Your task to perform on an android device: Open eBay Image 0: 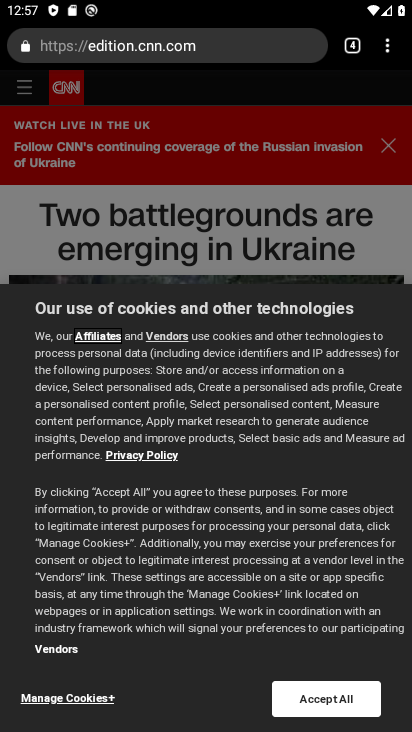
Step 0: press home button
Your task to perform on an android device: Open eBay Image 1: 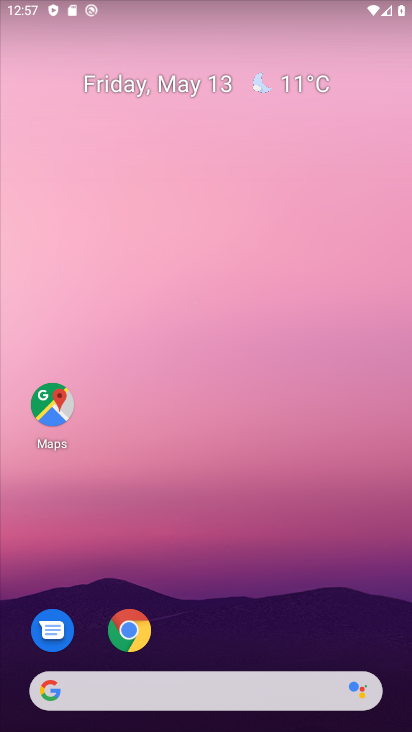
Step 1: drag from (260, 643) to (227, 268)
Your task to perform on an android device: Open eBay Image 2: 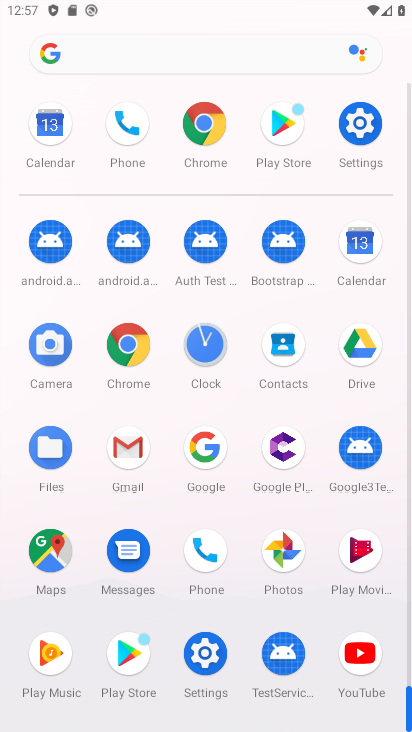
Step 2: click (142, 364)
Your task to perform on an android device: Open eBay Image 3: 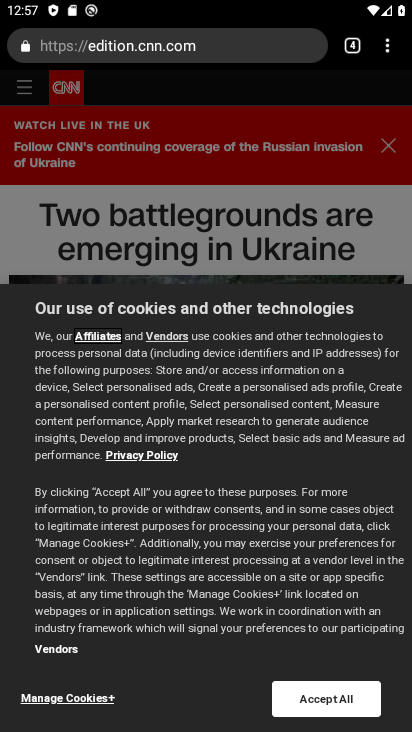
Step 3: click (348, 59)
Your task to perform on an android device: Open eBay Image 4: 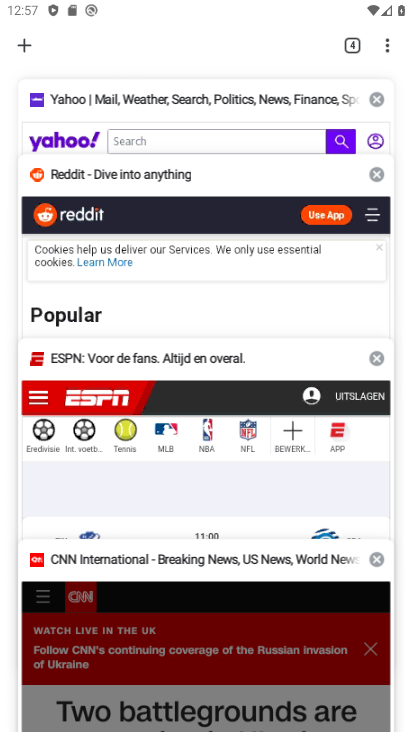
Step 4: click (26, 46)
Your task to perform on an android device: Open eBay Image 5: 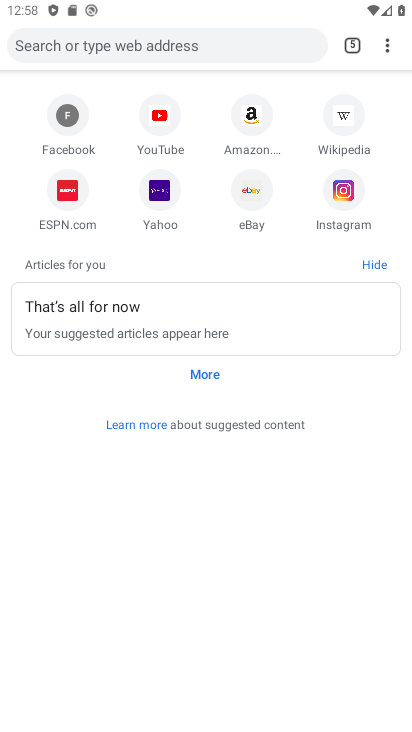
Step 5: click (157, 38)
Your task to perform on an android device: Open eBay Image 6: 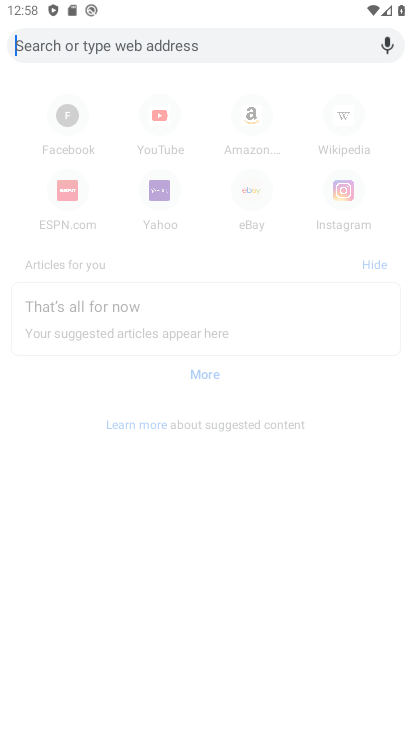
Step 6: click (155, 46)
Your task to perform on an android device: Open eBay Image 7: 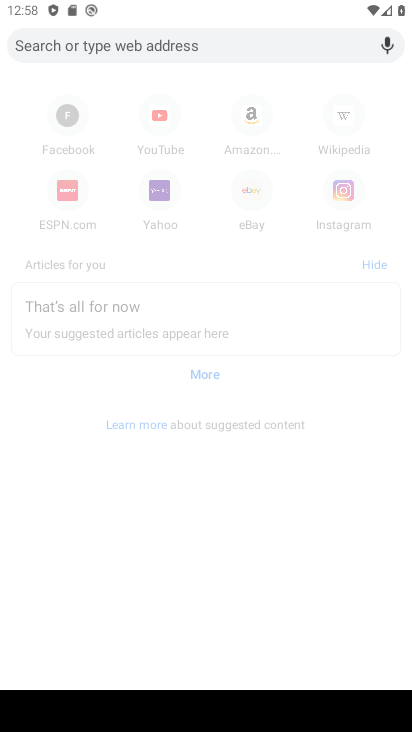
Step 7: type "ebay"
Your task to perform on an android device: Open eBay Image 8: 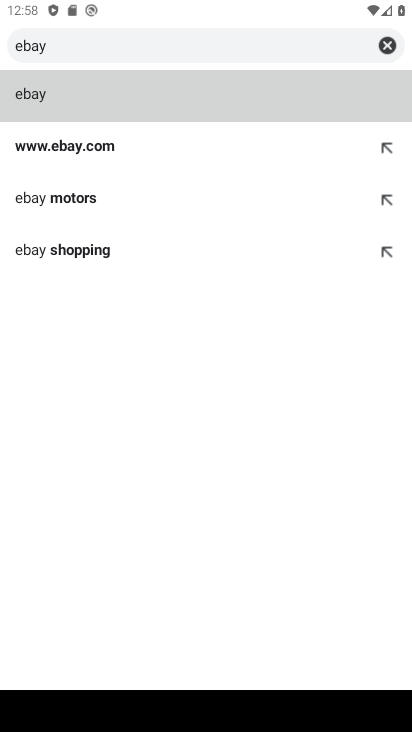
Step 8: click (47, 84)
Your task to perform on an android device: Open eBay Image 9: 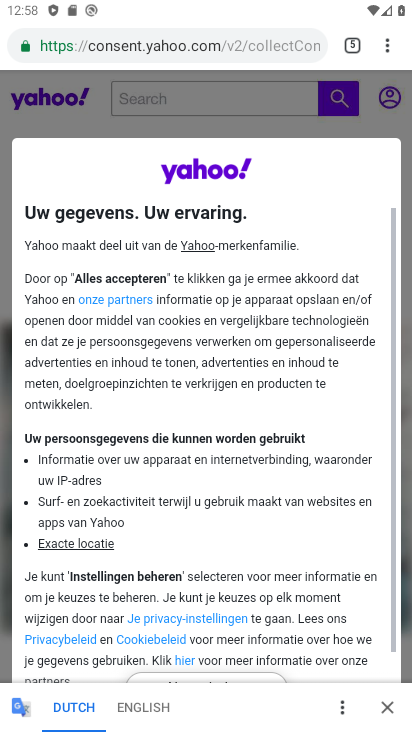
Step 9: click (384, 713)
Your task to perform on an android device: Open eBay Image 10: 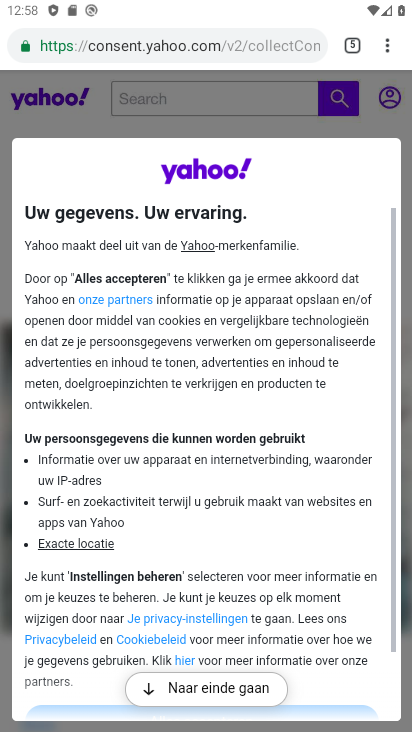
Step 10: drag from (233, 611) to (209, 240)
Your task to perform on an android device: Open eBay Image 11: 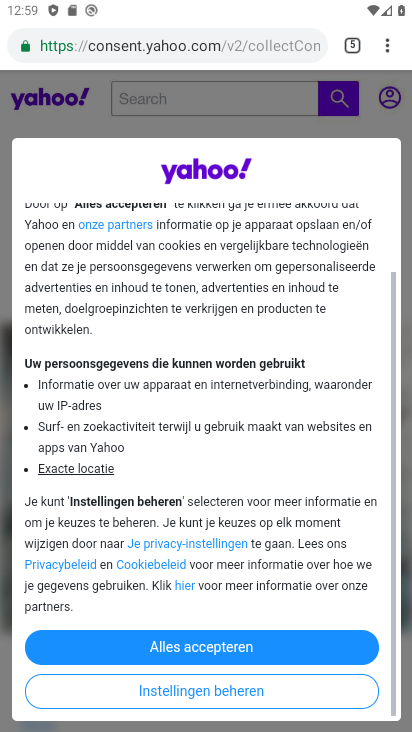
Step 11: click (257, 644)
Your task to perform on an android device: Open eBay Image 12: 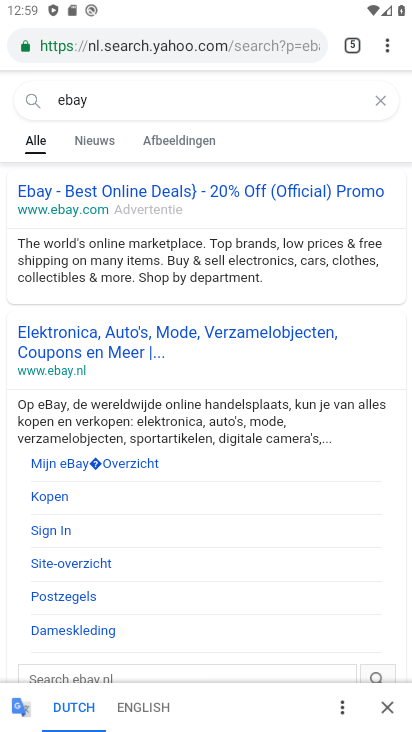
Step 12: click (141, 188)
Your task to perform on an android device: Open eBay Image 13: 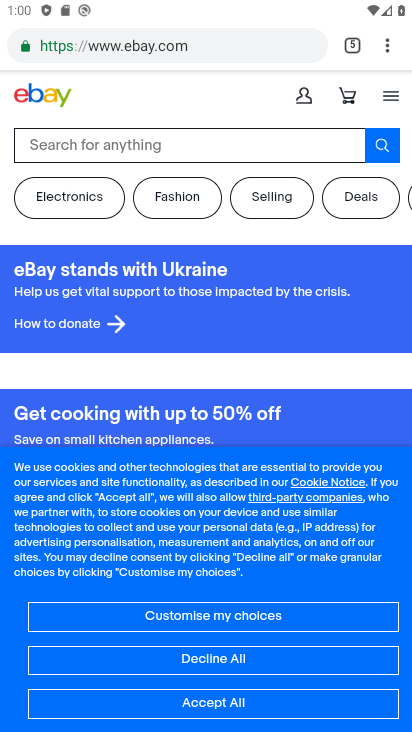
Step 13: task complete